Your task to perform on an android device: Open Google Chrome and click the shortcut for Amazon.com Image 0: 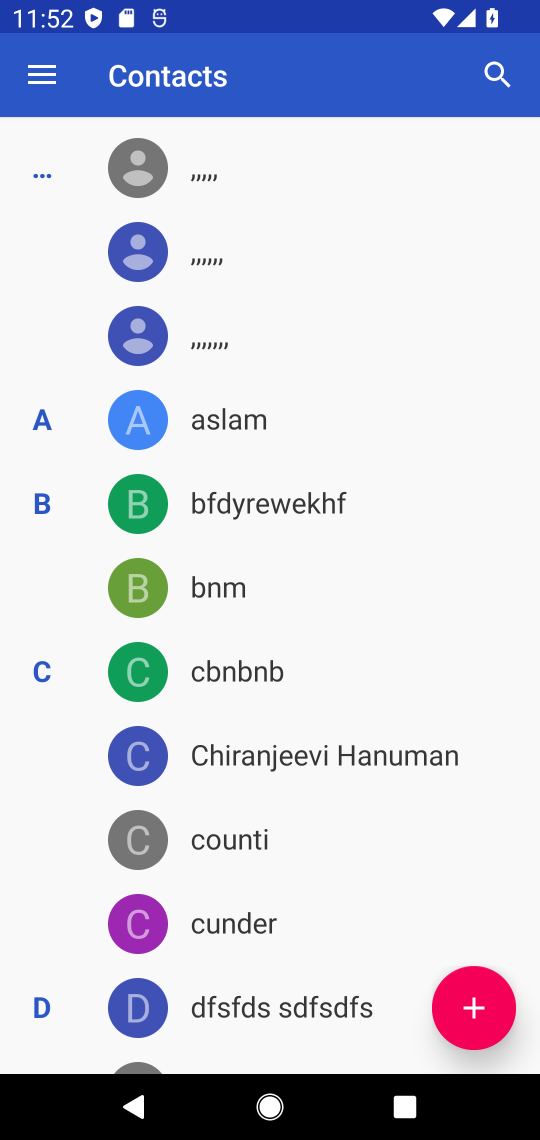
Step 0: press home button
Your task to perform on an android device: Open Google Chrome and click the shortcut for Amazon.com Image 1: 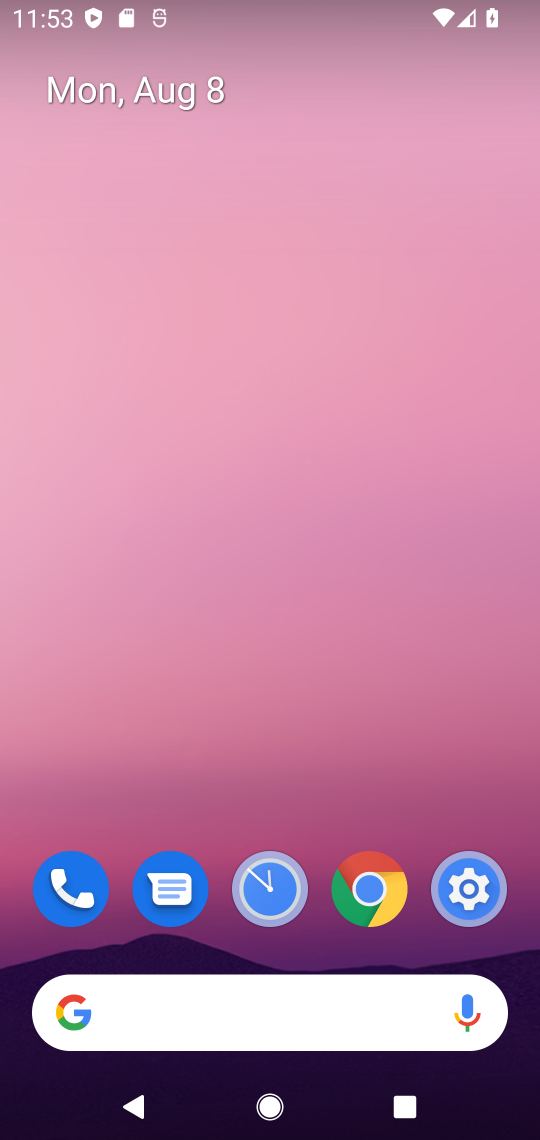
Step 1: click (378, 861)
Your task to perform on an android device: Open Google Chrome and click the shortcut for Amazon.com Image 2: 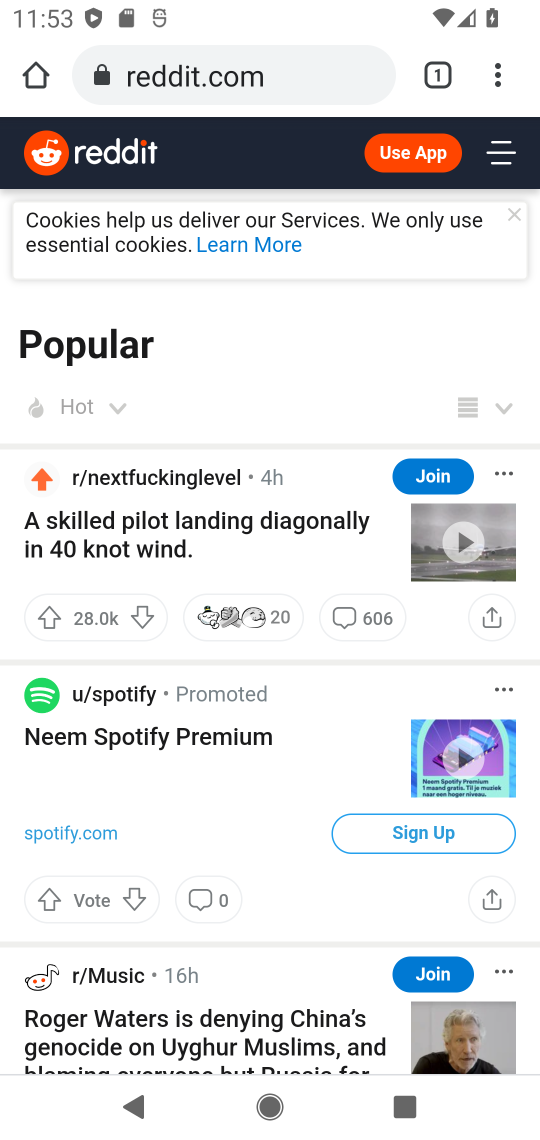
Step 2: click (426, 63)
Your task to perform on an android device: Open Google Chrome and click the shortcut for Amazon.com Image 3: 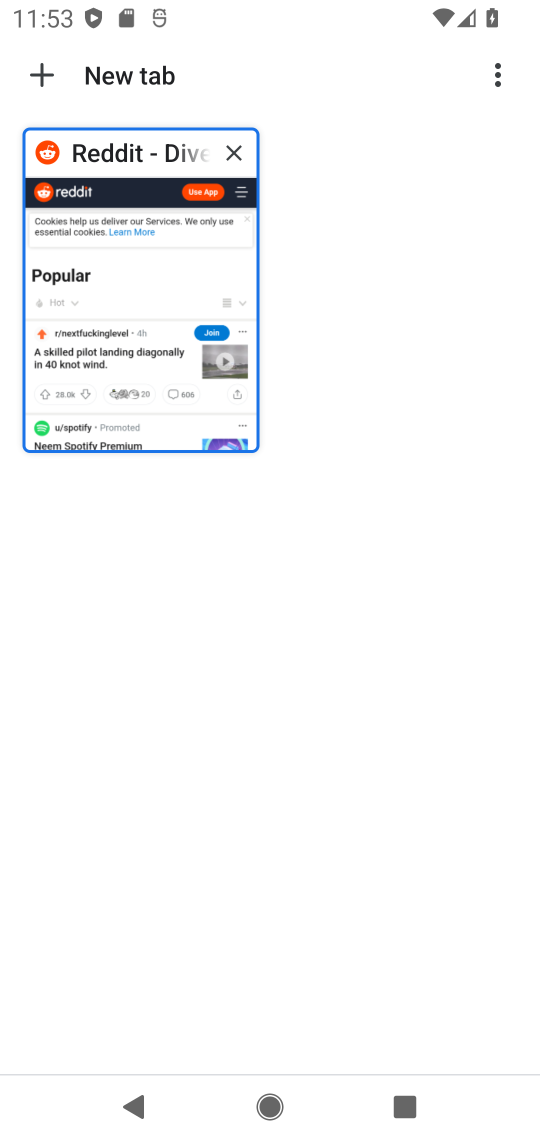
Step 3: click (236, 155)
Your task to perform on an android device: Open Google Chrome and click the shortcut for Amazon.com Image 4: 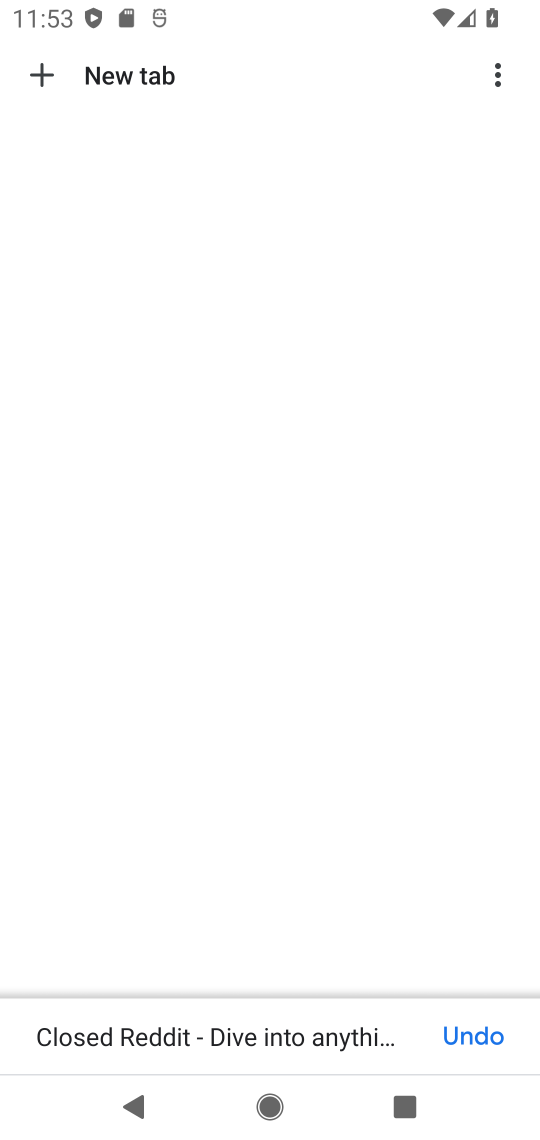
Step 4: click (40, 74)
Your task to perform on an android device: Open Google Chrome and click the shortcut for Amazon.com Image 5: 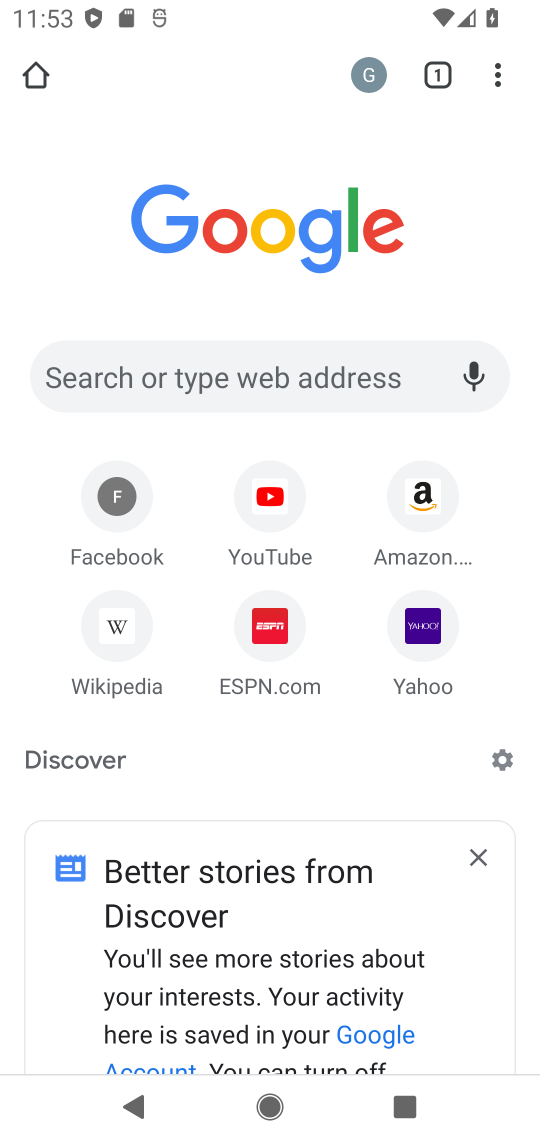
Step 5: click (433, 508)
Your task to perform on an android device: Open Google Chrome and click the shortcut for Amazon.com Image 6: 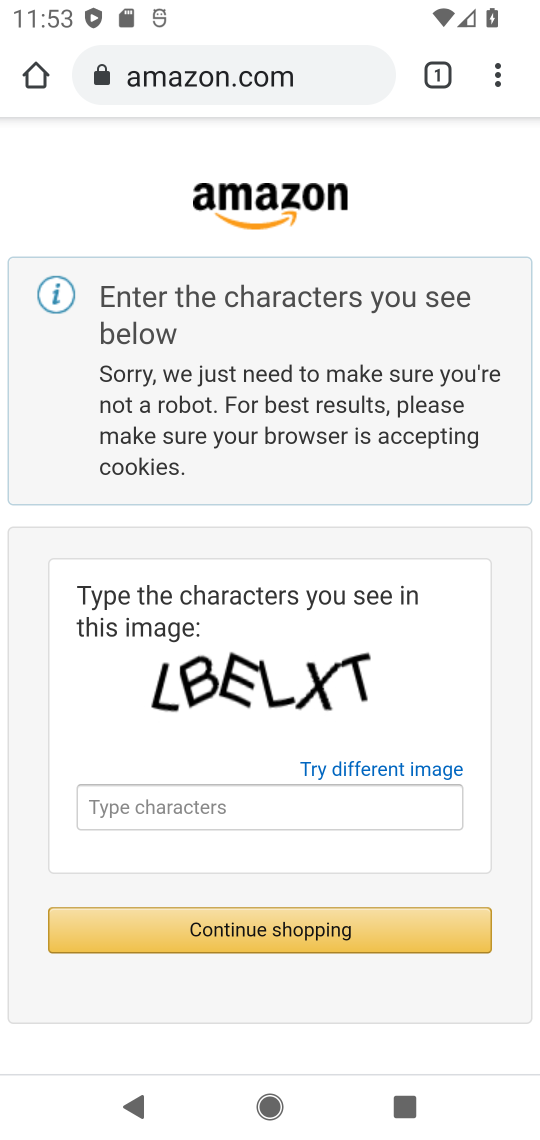
Step 6: task complete